Your task to perform on an android device: Open my contact list Image 0: 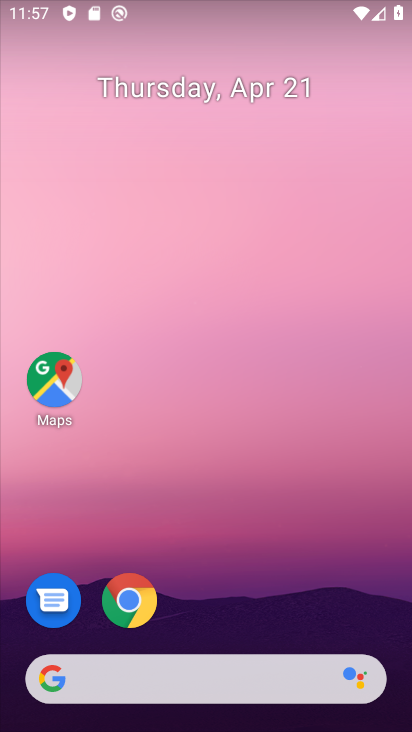
Step 0: drag from (387, 329) to (377, 266)
Your task to perform on an android device: Open my contact list Image 1: 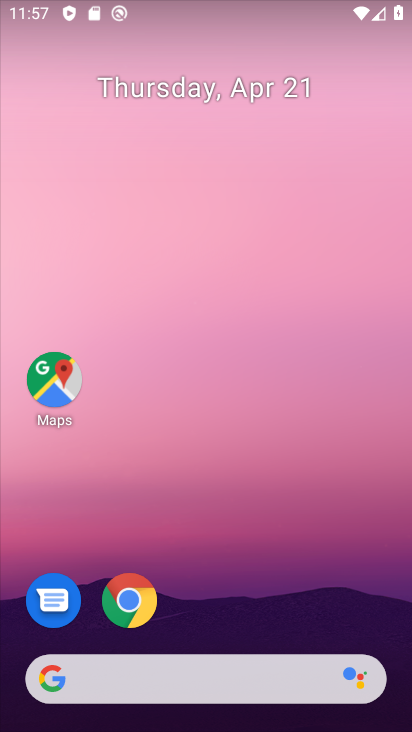
Step 1: drag from (397, 617) to (390, 155)
Your task to perform on an android device: Open my contact list Image 2: 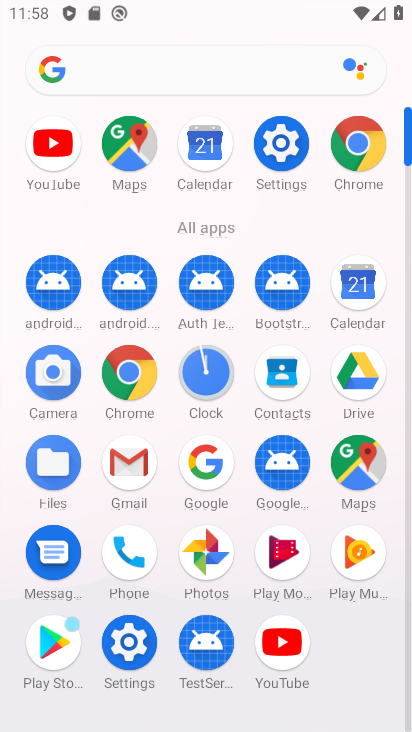
Step 2: click (290, 377)
Your task to perform on an android device: Open my contact list Image 3: 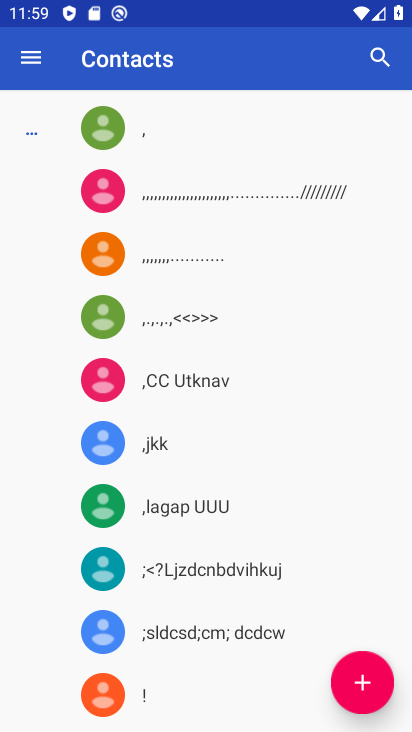
Step 3: task complete